Your task to perform on an android device: turn off notifications settings in the gmail app Image 0: 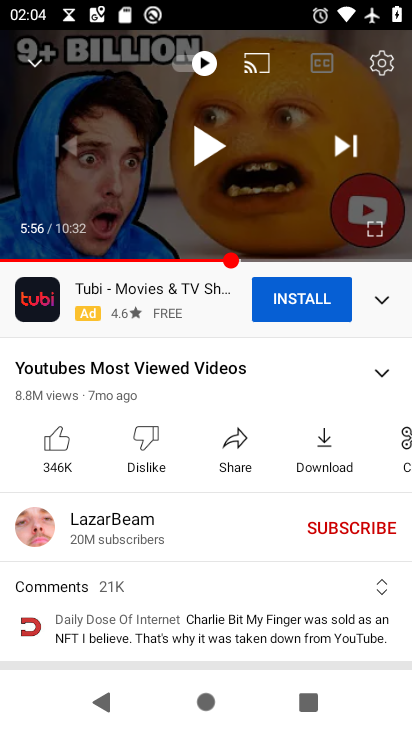
Step 0: press home button
Your task to perform on an android device: turn off notifications settings in the gmail app Image 1: 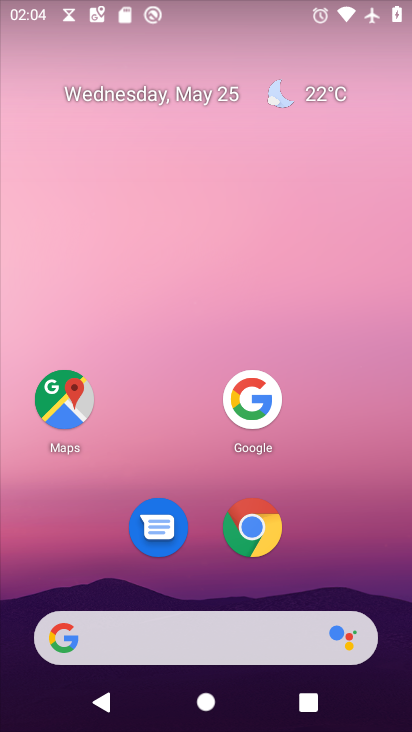
Step 1: drag from (278, 576) to (401, 147)
Your task to perform on an android device: turn off notifications settings in the gmail app Image 2: 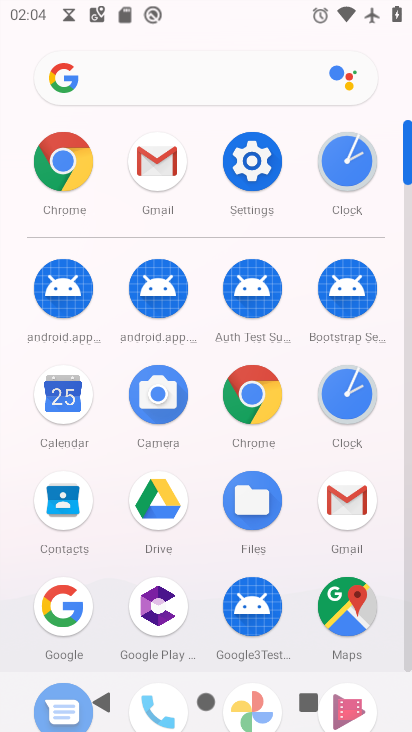
Step 2: drag from (273, 338) to (363, 141)
Your task to perform on an android device: turn off notifications settings in the gmail app Image 3: 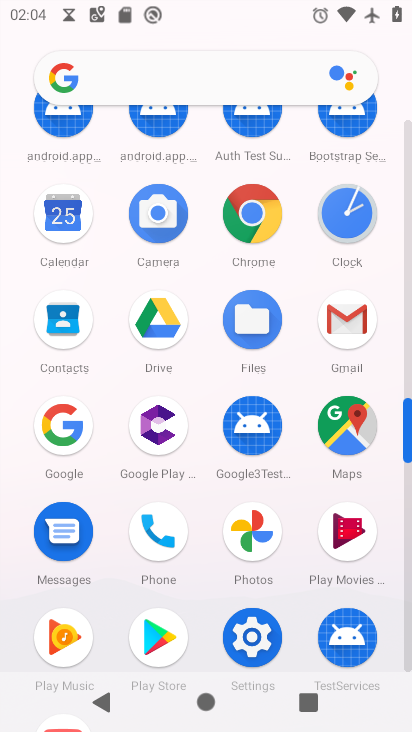
Step 3: click (347, 327)
Your task to perform on an android device: turn off notifications settings in the gmail app Image 4: 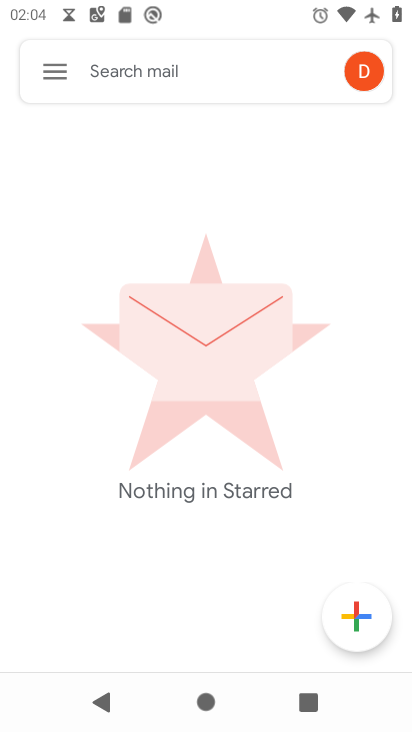
Step 4: click (47, 72)
Your task to perform on an android device: turn off notifications settings in the gmail app Image 5: 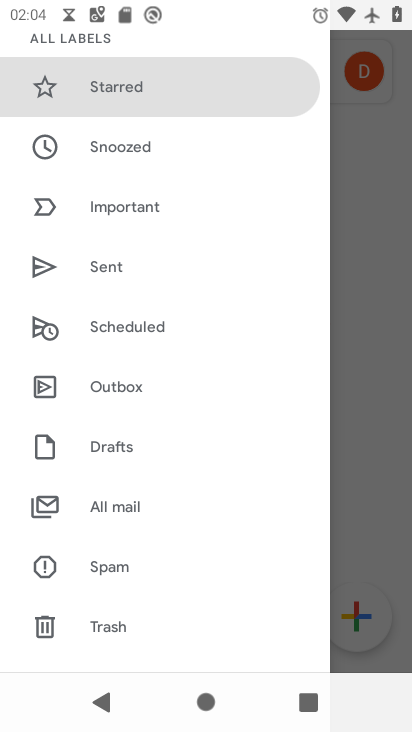
Step 5: drag from (154, 607) to (275, 223)
Your task to perform on an android device: turn off notifications settings in the gmail app Image 6: 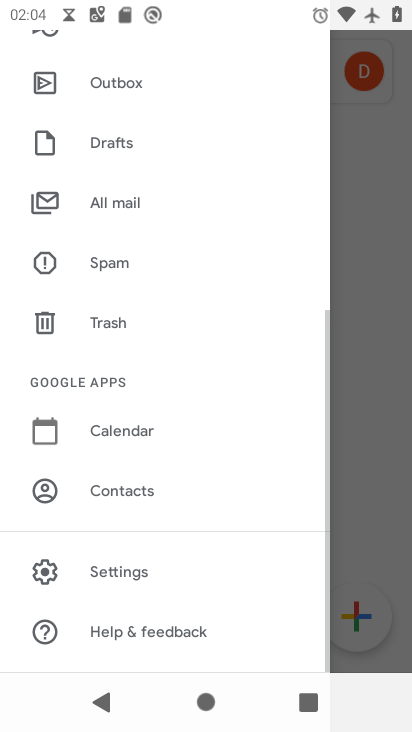
Step 6: click (130, 573)
Your task to perform on an android device: turn off notifications settings in the gmail app Image 7: 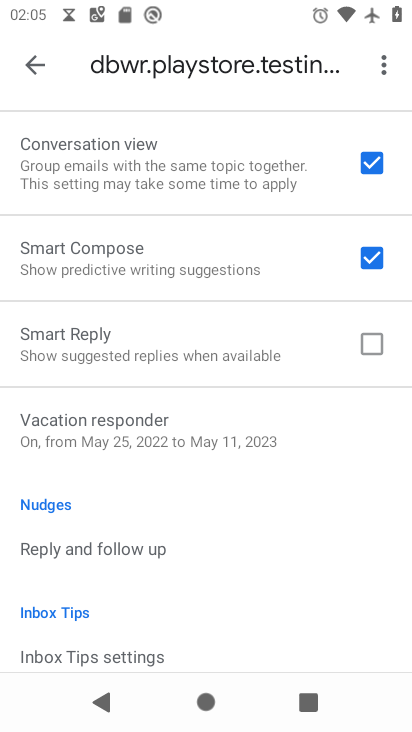
Step 7: drag from (266, 224) to (205, 697)
Your task to perform on an android device: turn off notifications settings in the gmail app Image 8: 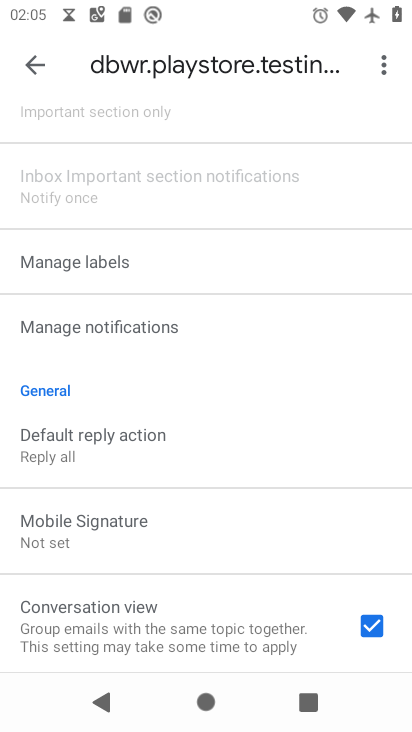
Step 8: drag from (246, 207) to (186, 635)
Your task to perform on an android device: turn off notifications settings in the gmail app Image 9: 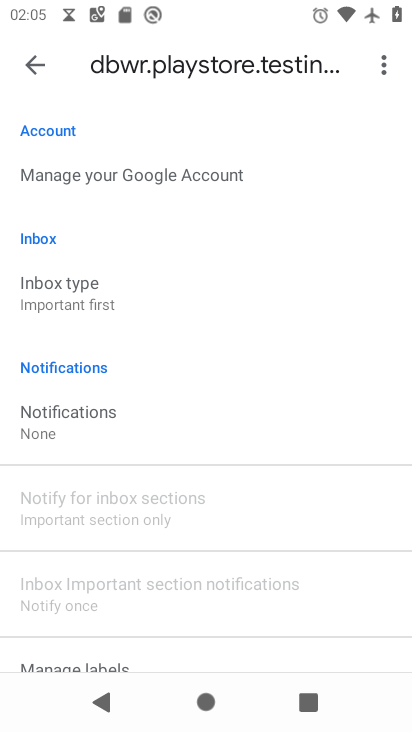
Step 9: click (66, 412)
Your task to perform on an android device: turn off notifications settings in the gmail app Image 10: 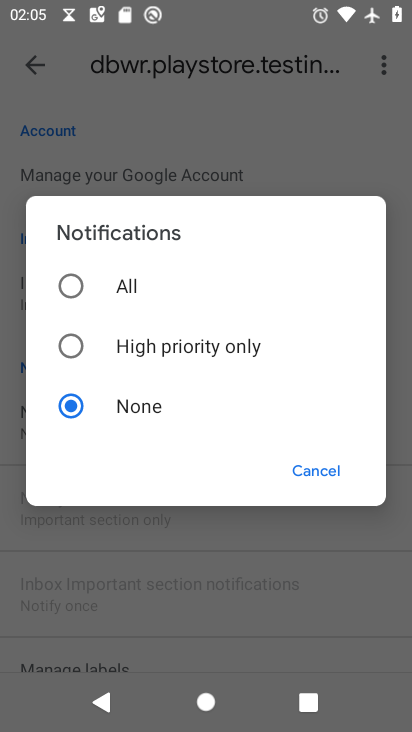
Step 10: task complete